Your task to perform on an android device: Search for seafood restaurants on Google Maps Image 0: 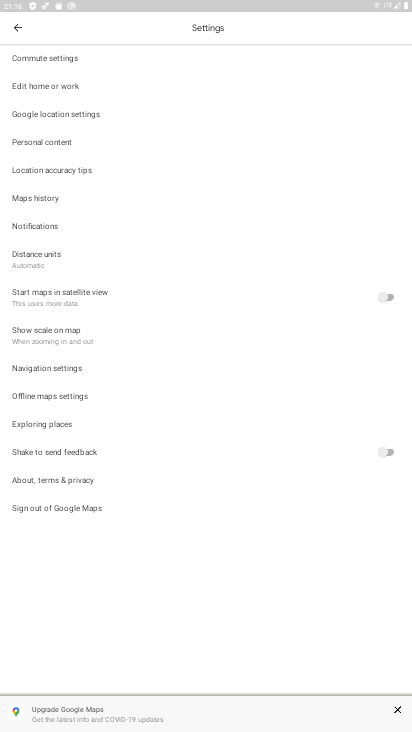
Step 0: drag from (244, 527) to (296, 341)
Your task to perform on an android device: Search for seafood restaurants on Google Maps Image 1: 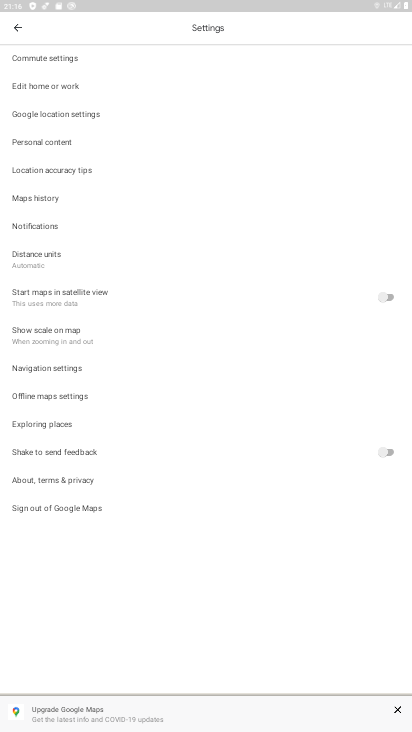
Step 1: click (23, 21)
Your task to perform on an android device: Search for seafood restaurants on Google Maps Image 2: 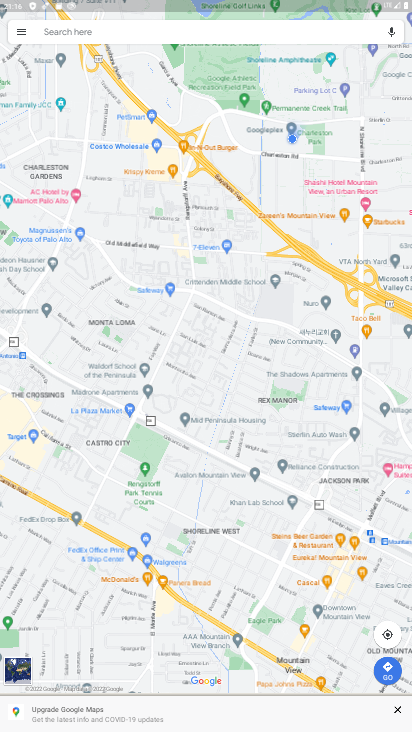
Step 2: click (148, 41)
Your task to perform on an android device: Search for seafood restaurants on Google Maps Image 3: 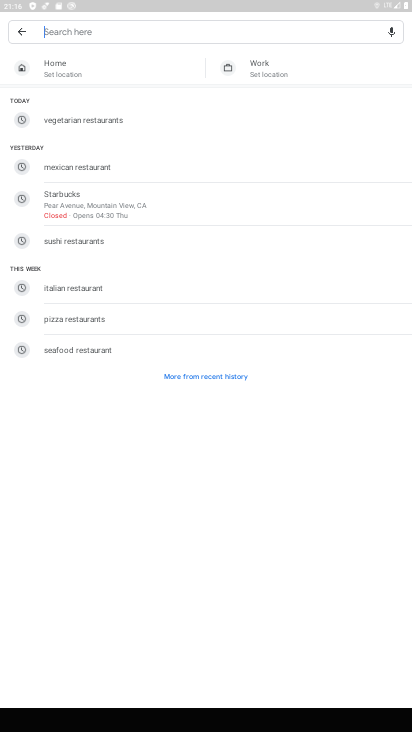
Step 3: click (112, 27)
Your task to perform on an android device: Search for seafood restaurants on Google Maps Image 4: 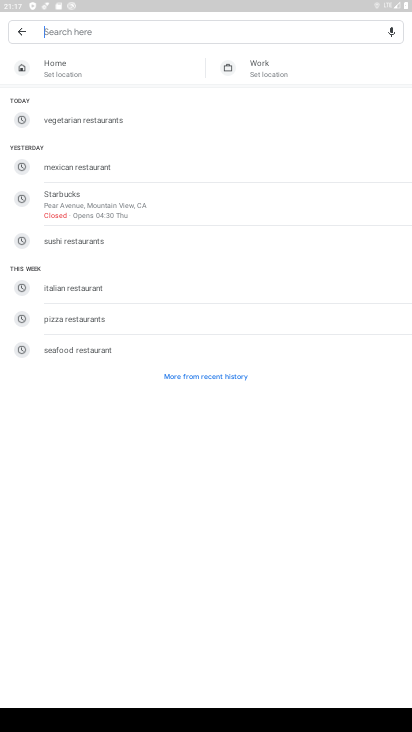
Step 4: click (51, 350)
Your task to perform on an android device: Search for seafood restaurants on Google Maps Image 5: 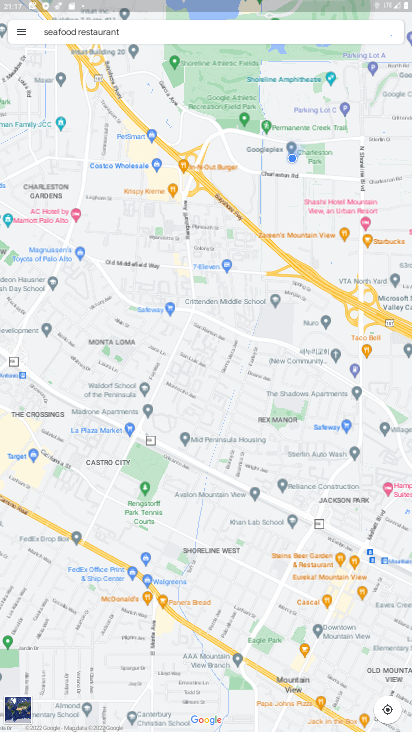
Step 5: task complete